Your task to perform on an android device: Open Chrome and go to the settings page Image 0: 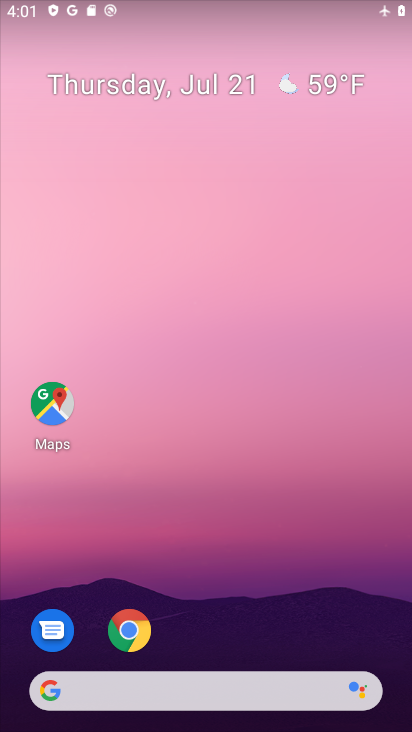
Step 0: drag from (234, 637) to (227, 170)
Your task to perform on an android device: Open Chrome and go to the settings page Image 1: 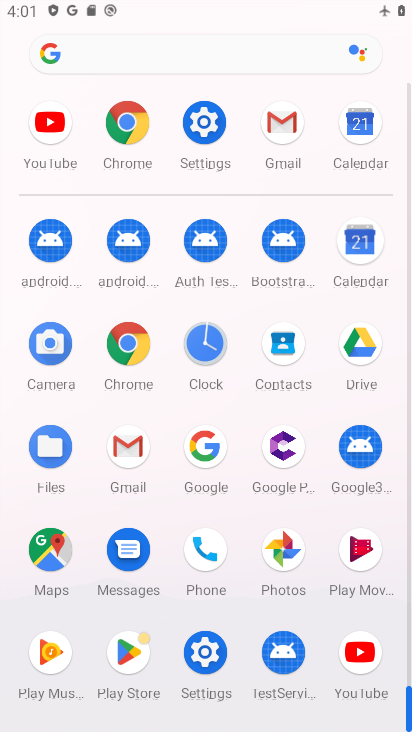
Step 1: click (214, 114)
Your task to perform on an android device: Open Chrome and go to the settings page Image 2: 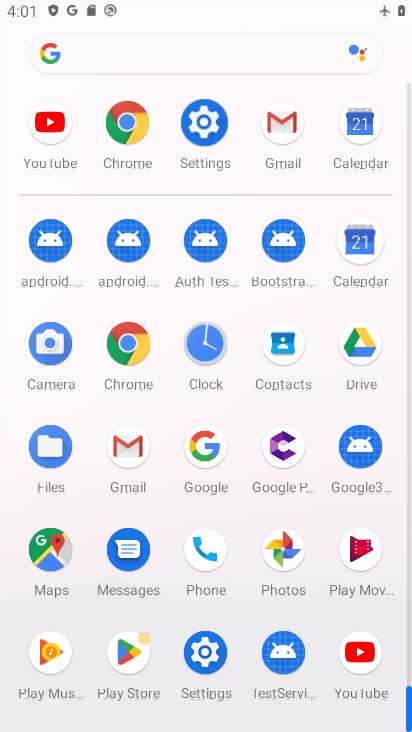
Step 2: click (209, 119)
Your task to perform on an android device: Open Chrome and go to the settings page Image 3: 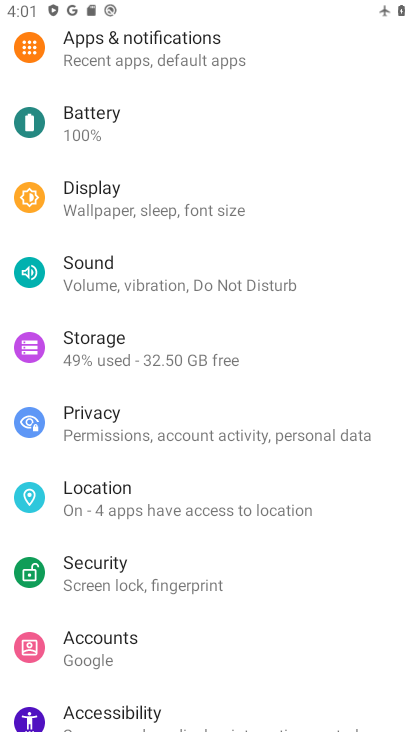
Step 3: click (207, 124)
Your task to perform on an android device: Open Chrome and go to the settings page Image 4: 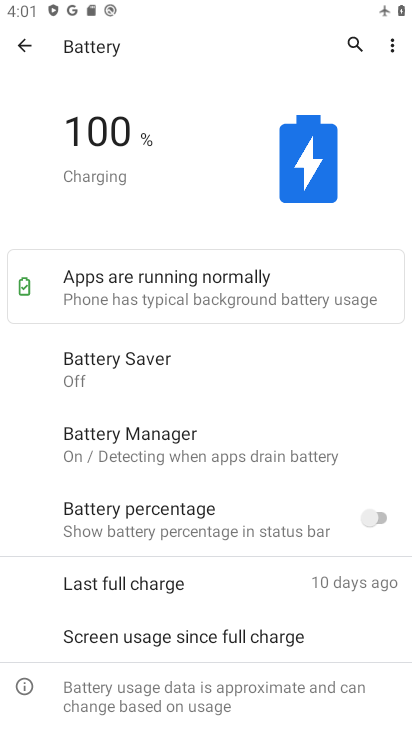
Step 4: press back button
Your task to perform on an android device: Open Chrome and go to the settings page Image 5: 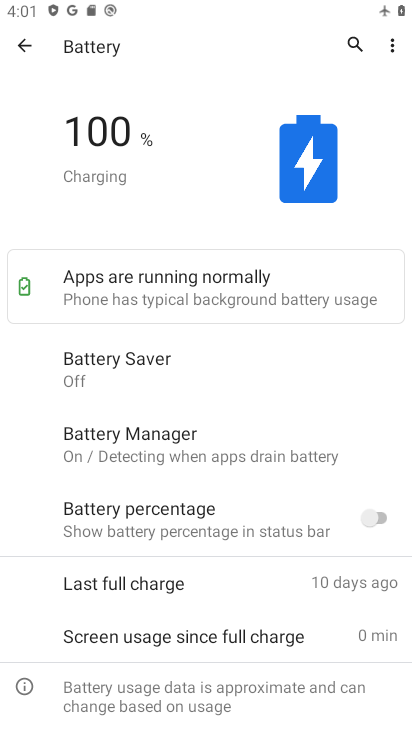
Step 5: press back button
Your task to perform on an android device: Open Chrome and go to the settings page Image 6: 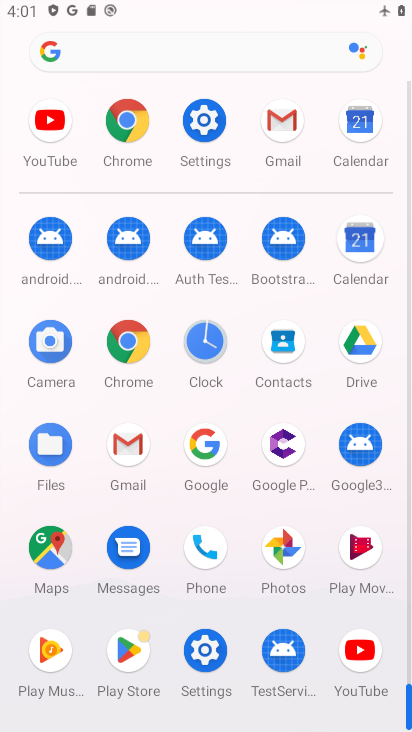
Step 6: click (36, 39)
Your task to perform on an android device: Open Chrome and go to the settings page Image 7: 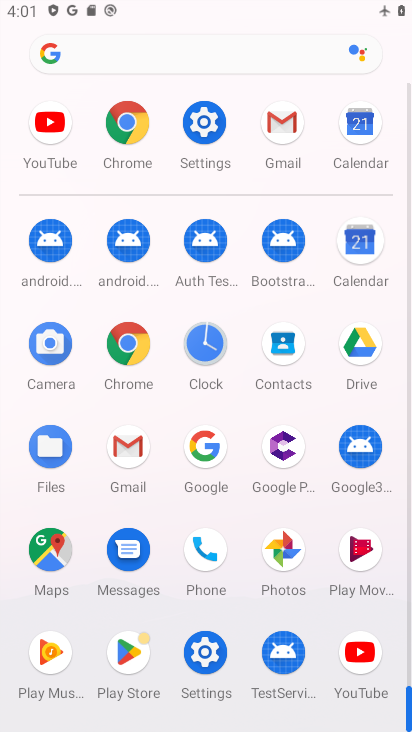
Step 7: click (36, 38)
Your task to perform on an android device: Open Chrome and go to the settings page Image 8: 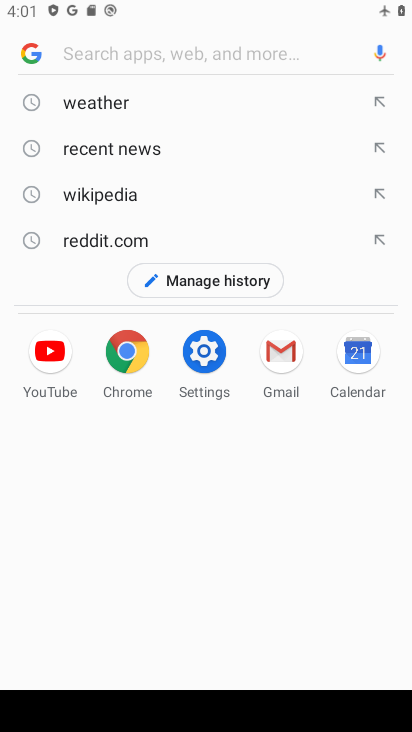
Step 8: press back button
Your task to perform on an android device: Open Chrome and go to the settings page Image 9: 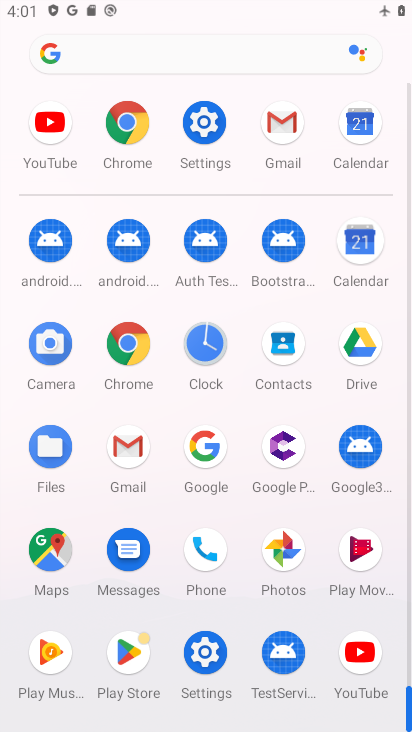
Step 9: click (131, 338)
Your task to perform on an android device: Open Chrome and go to the settings page Image 10: 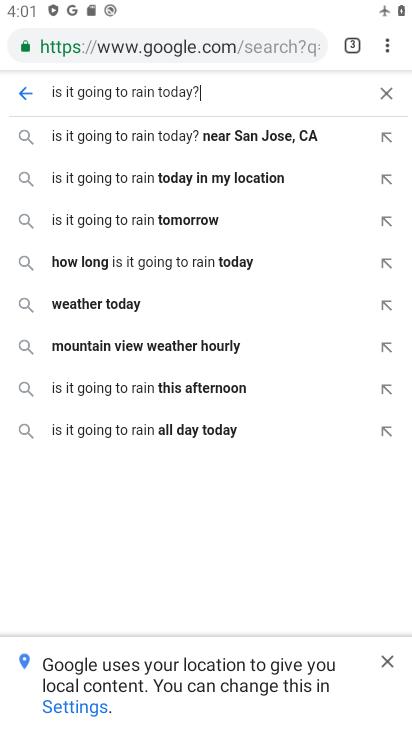
Step 10: click (386, 89)
Your task to perform on an android device: Open Chrome and go to the settings page Image 11: 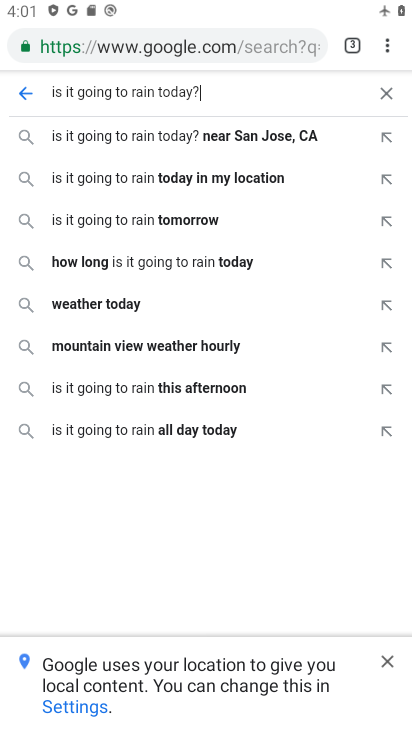
Step 11: click (386, 89)
Your task to perform on an android device: Open Chrome and go to the settings page Image 12: 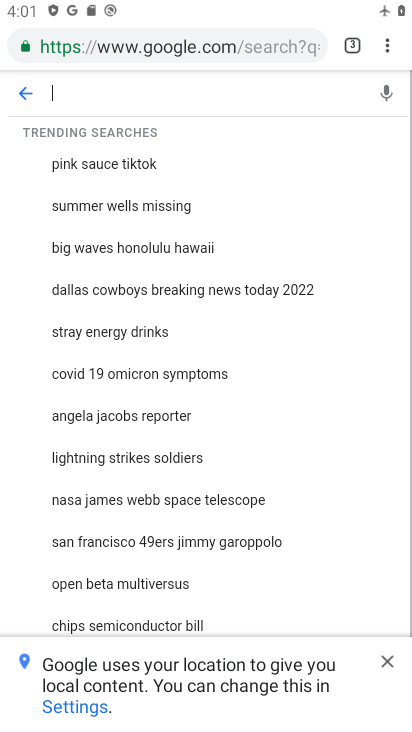
Step 12: click (386, 89)
Your task to perform on an android device: Open Chrome and go to the settings page Image 13: 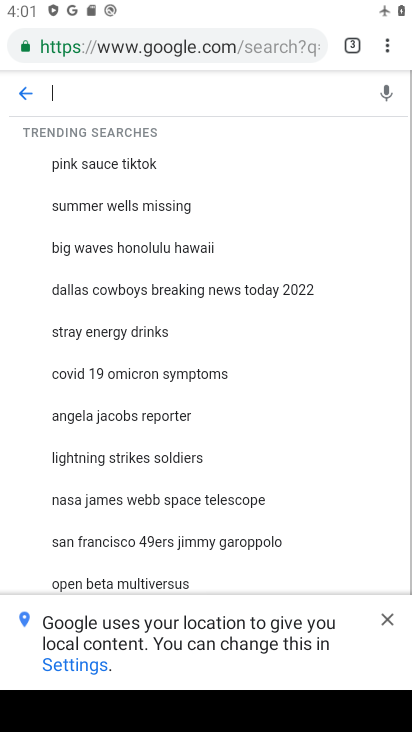
Step 13: click (389, 91)
Your task to perform on an android device: Open Chrome and go to the settings page Image 14: 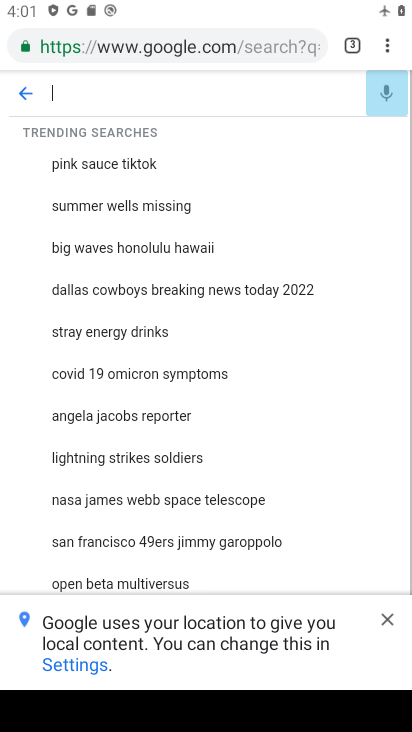
Step 14: click (390, 92)
Your task to perform on an android device: Open Chrome and go to the settings page Image 15: 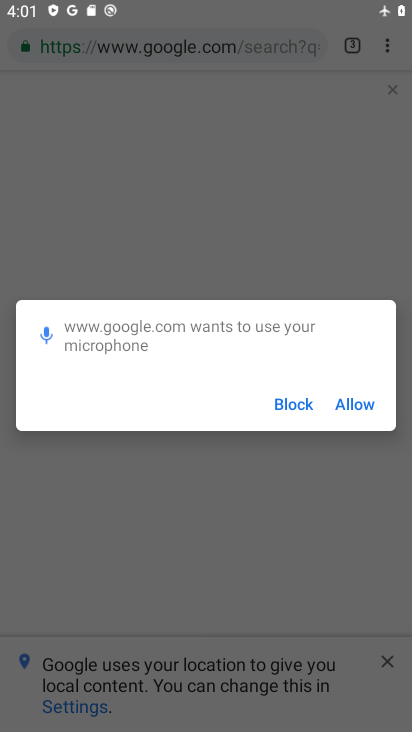
Step 15: click (367, 401)
Your task to perform on an android device: Open Chrome and go to the settings page Image 16: 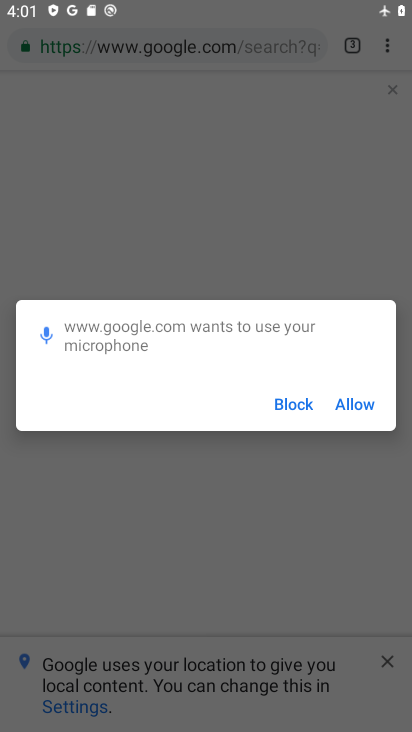
Step 16: click (367, 401)
Your task to perform on an android device: Open Chrome and go to the settings page Image 17: 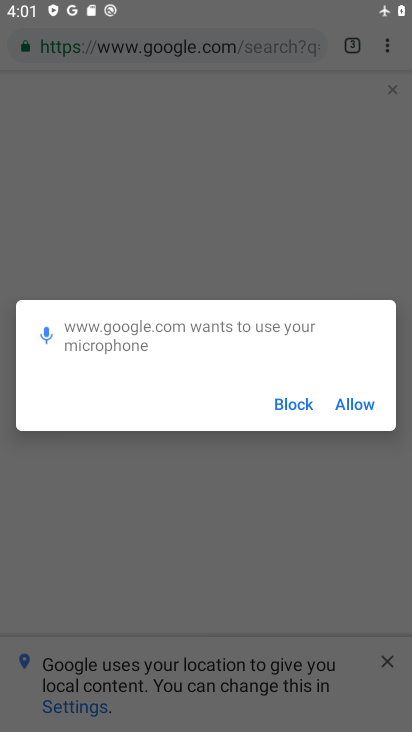
Step 17: click (367, 401)
Your task to perform on an android device: Open Chrome and go to the settings page Image 18: 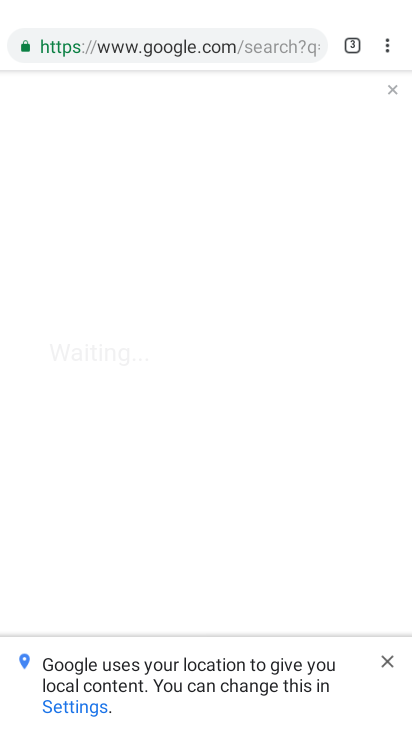
Step 18: click (364, 394)
Your task to perform on an android device: Open Chrome and go to the settings page Image 19: 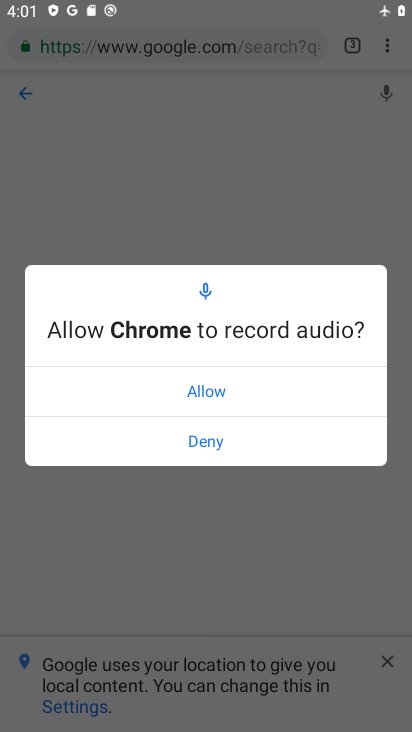
Step 19: click (244, 388)
Your task to perform on an android device: Open Chrome and go to the settings page Image 20: 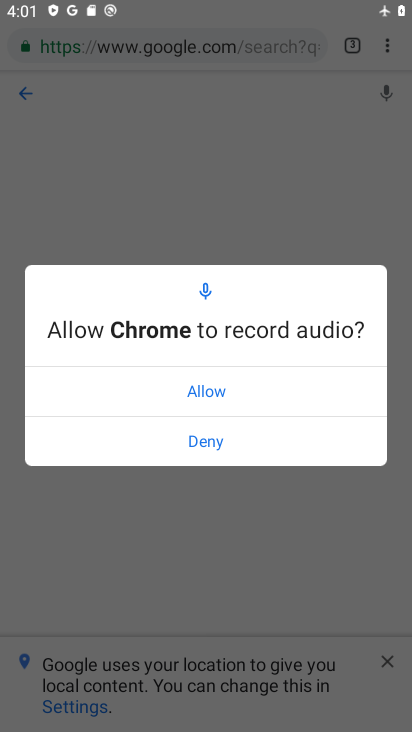
Step 20: click (247, 391)
Your task to perform on an android device: Open Chrome and go to the settings page Image 21: 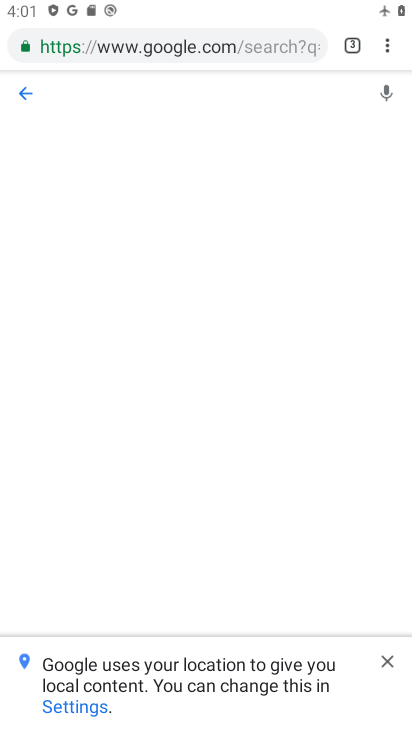
Step 21: click (32, 83)
Your task to perform on an android device: Open Chrome and go to the settings page Image 22: 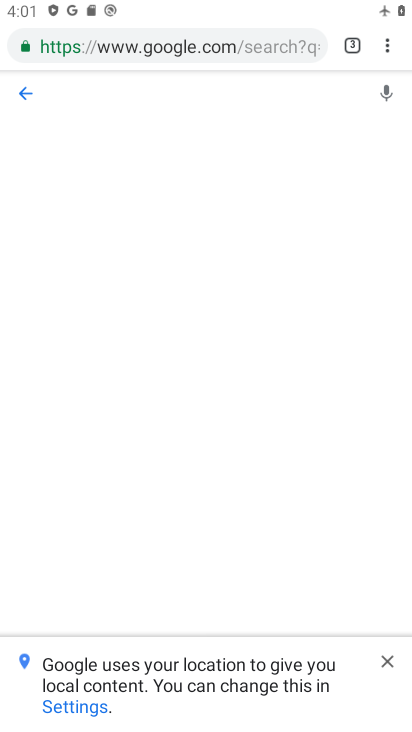
Step 22: click (32, 83)
Your task to perform on an android device: Open Chrome and go to the settings page Image 23: 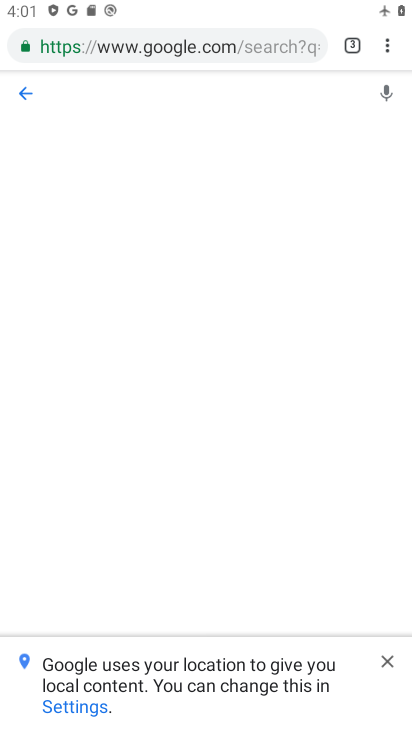
Step 23: click (32, 84)
Your task to perform on an android device: Open Chrome and go to the settings page Image 24: 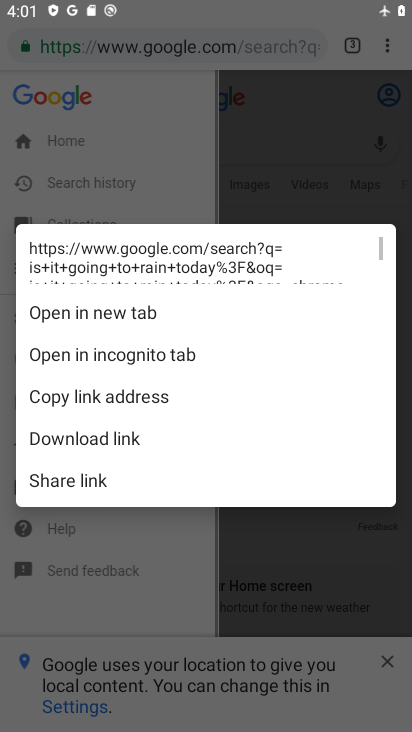
Step 24: click (165, 151)
Your task to perform on an android device: Open Chrome and go to the settings page Image 25: 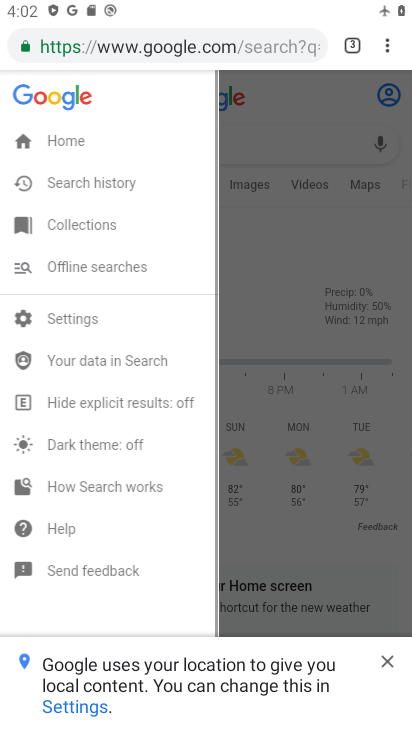
Step 25: press back button
Your task to perform on an android device: Open Chrome and go to the settings page Image 26: 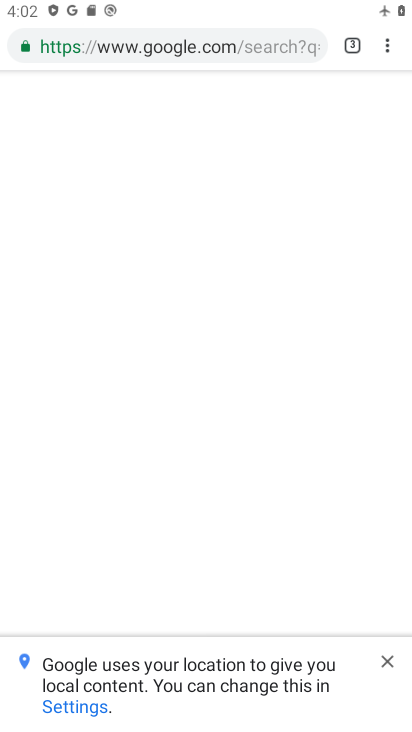
Step 26: press back button
Your task to perform on an android device: Open Chrome and go to the settings page Image 27: 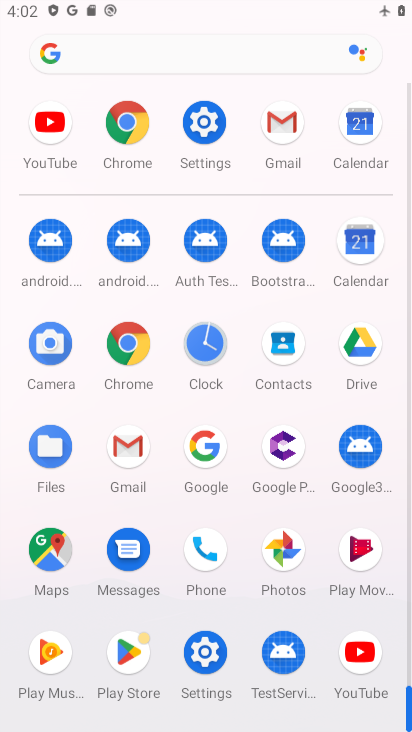
Step 27: drag from (387, 48) to (134, 601)
Your task to perform on an android device: Open Chrome and go to the settings page Image 28: 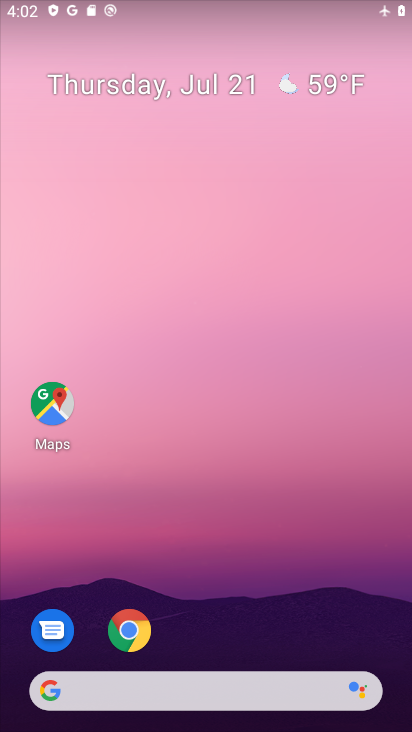
Step 28: drag from (208, 617) to (169, 181)
Your task to perform on an android device: Open Chrome and go to the settings page Image 29: 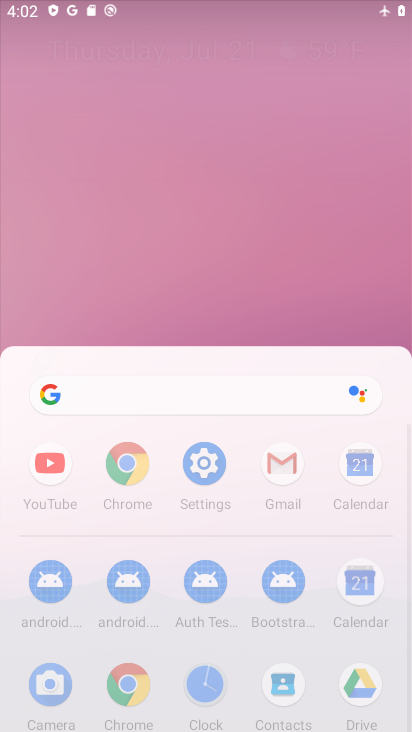
Step 29: drag from (237, 484) to (237, 52)
Your task to perform on an android device: Open Chrome and go to the settings page Image 30: 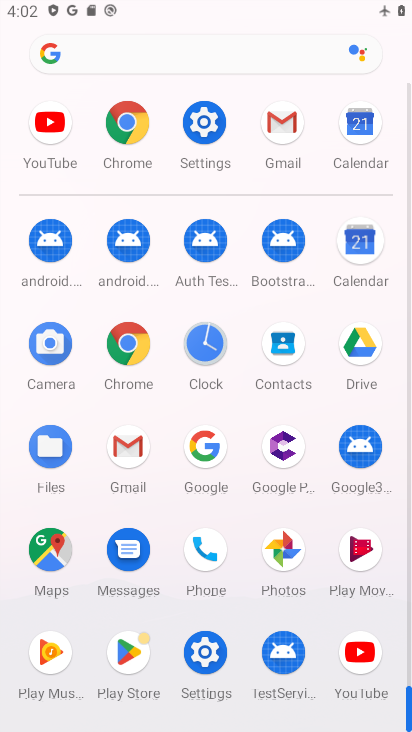
Step 30: drag from (267, 400) to (268, 106)
Your task to perform on an android device: Open Chrome and go to the settings page Image 31: 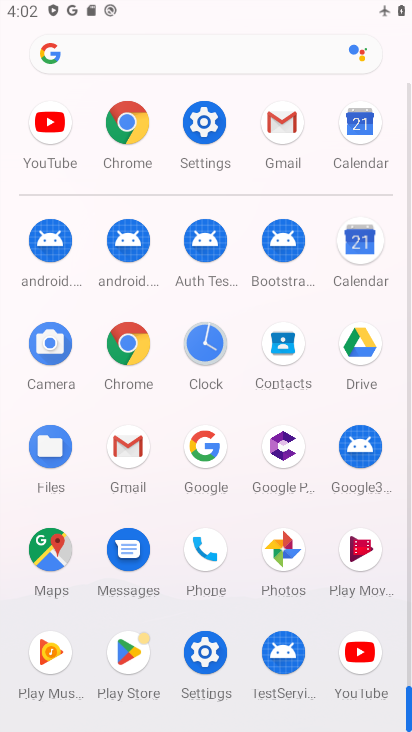
Step 31: click (131, 129)
Your task to perform on an android device: Open Chrome and go to the settings page Image 32: 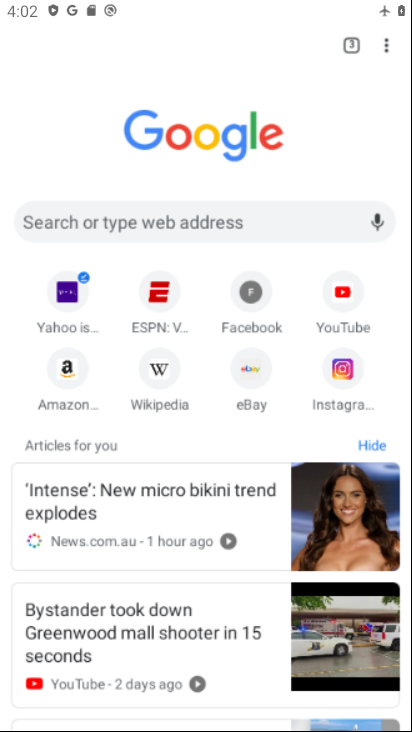
Step 32: click (135, 127)
Your task to perform on an android device: Open Chrome and go to the settings page Image 33: 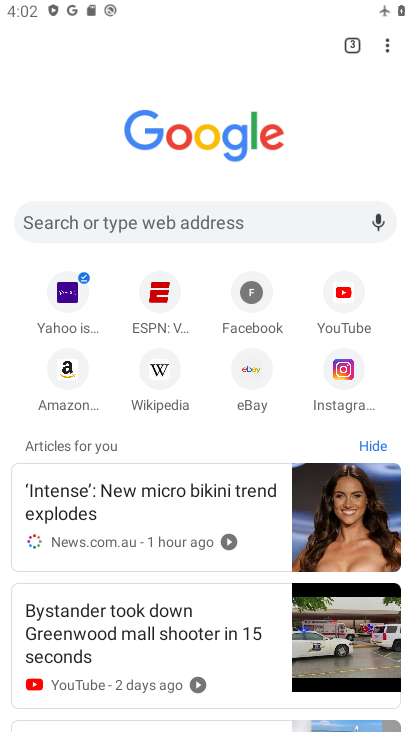
Step 33: drag from (381, 48) to (221, 378)
Your task to perform on an android device: Open Chrome and go to the settings page Image 34: 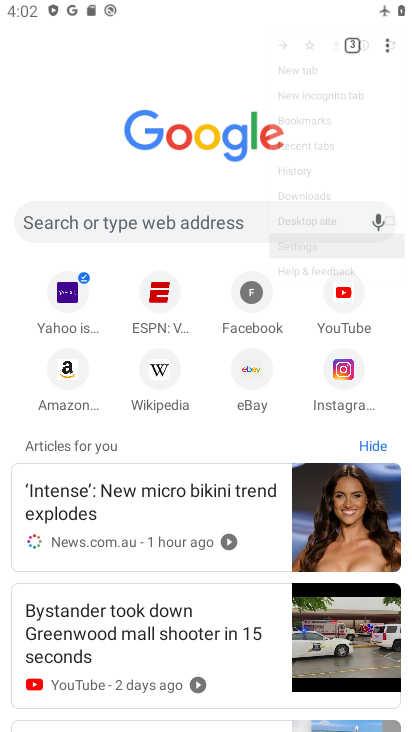
Step 34: click (232, 372)
Your task to perform on an android device: Open Chrome and go to the settings page Image 35: 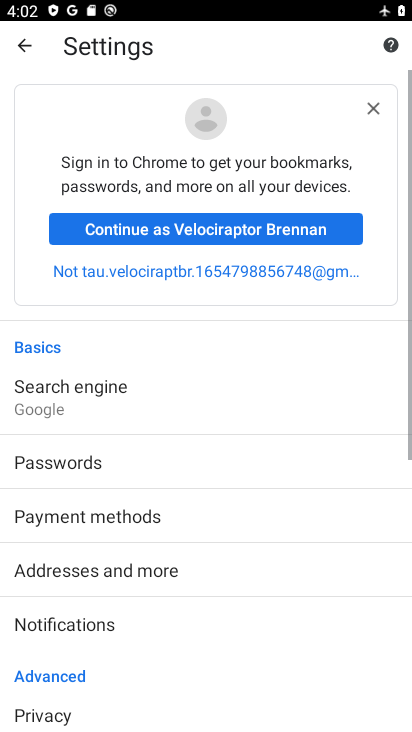
Step 35: task complete